Your task to perform on an android device: Show me popular games on the Play Store Image 0: 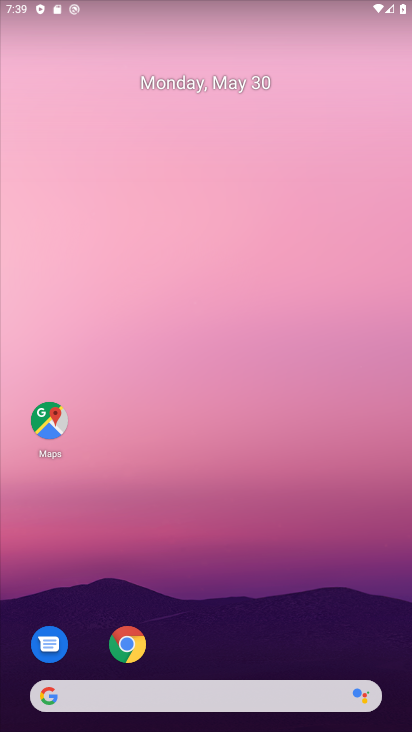
Step 0: drag from (234, 643) to (211, 80)
Your task to perform on an android device: Show me popular games on the Play Store Image 1: 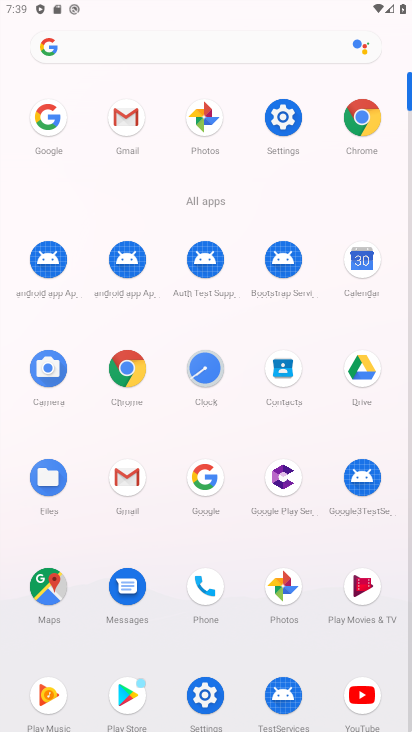
Step 1: drag from (78, 446) to (90, 295)
Your task to perform on an android device: Show me popular games on the Play Store Image 2: 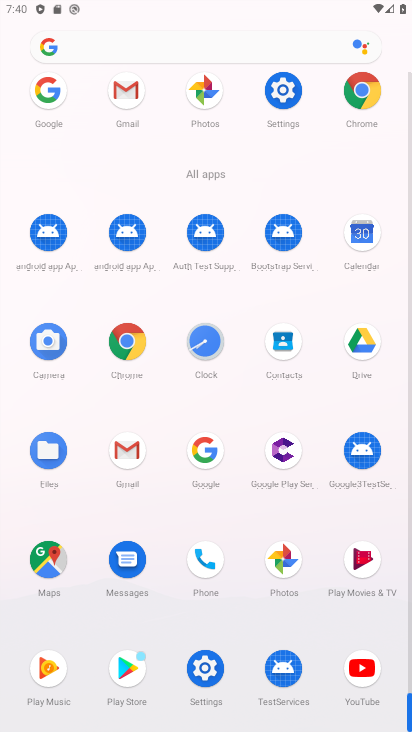
Step 2: click (128, 667)
Your task to perform on an android device: Show me popular games on the Play Store Image 3: 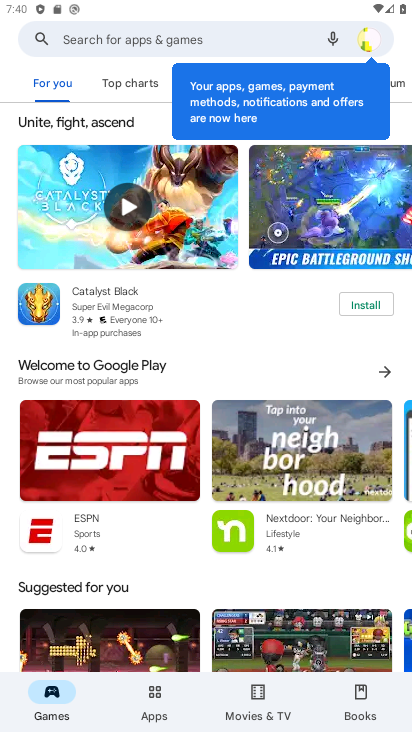
Step 3: click (155, 33)
Your task to perform on an android device: Show me popular games on the Play Store Image 4: 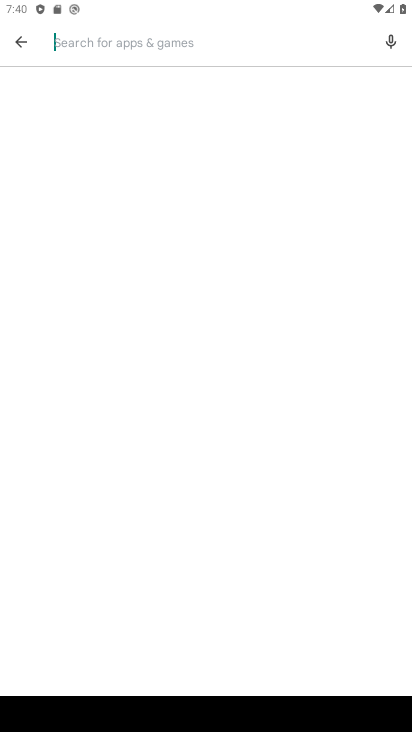
Step 4: type "popular games"
Your task to perform on an android device: Show me popular games on the Play Store Image 5: 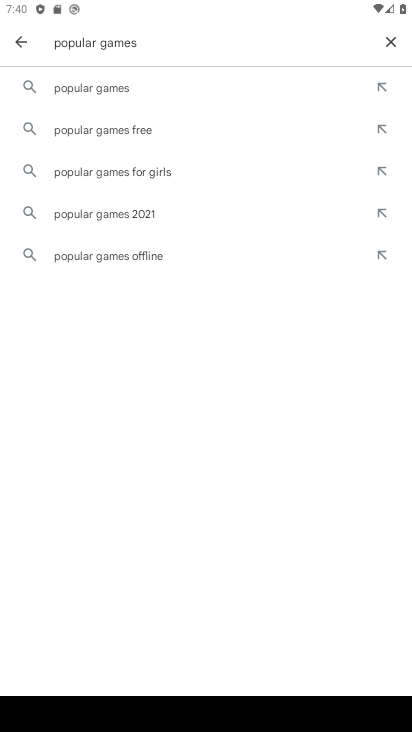
Step 5: click (113, 93)
Your task to perform on an android device: Show me popular games on the Play Store Image 6: 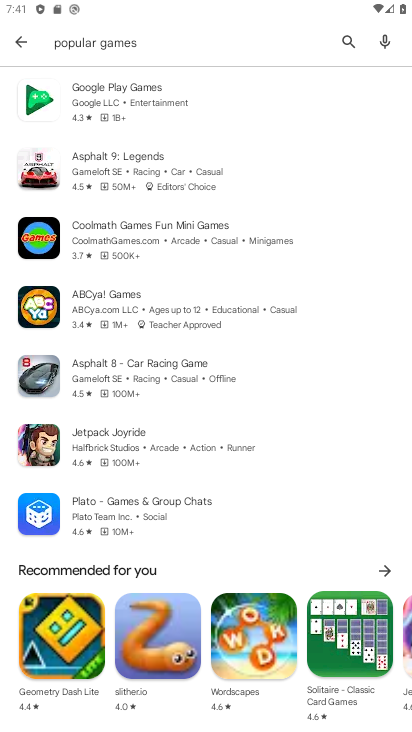
Step 6: task complete